Your task to perform on an android device: Show me popular videos on Youtube Image 0: 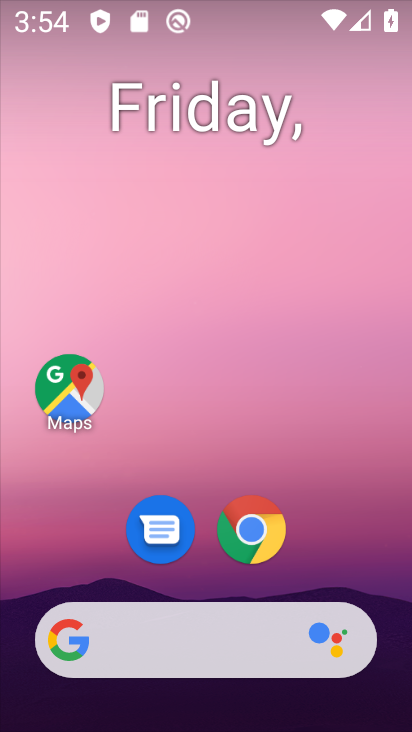
Step 0: drag from (55, 545) to (185, 135)
Your task to perform on an android device: Show me popular videos on Youtube Image 1: 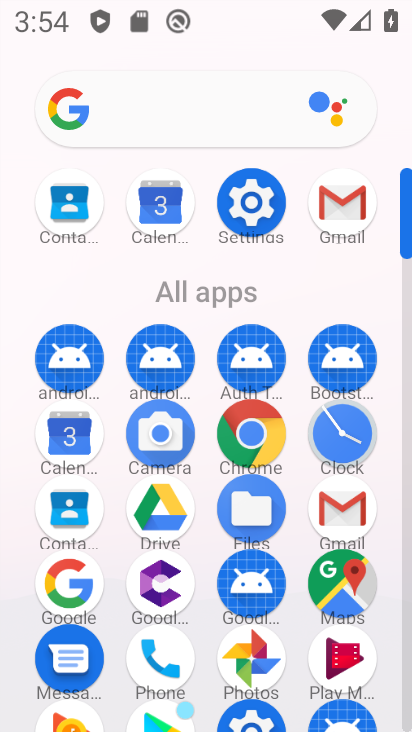
Step 1: drag from (181, 628) to (266, 222)
Your task to perform on an android device: Show me popular videos on Youtube Image 2: 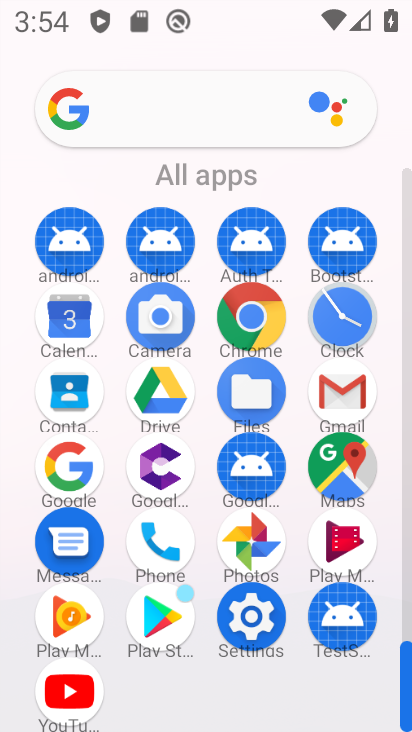
Step 2: click (73, 677)
Your task to perform on an android device: Show me popular videos on Youtube Image 3: 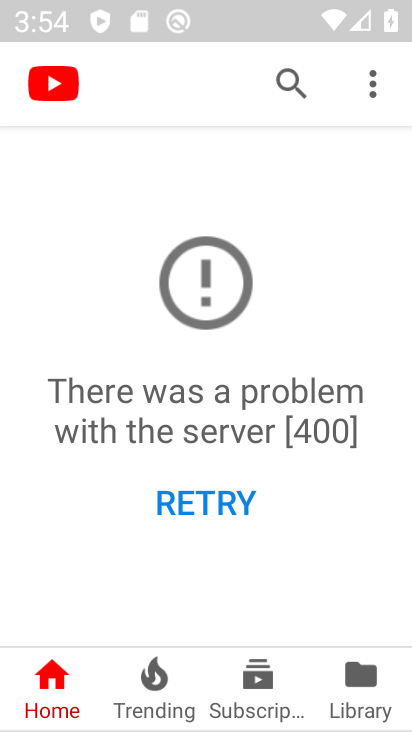
Step 3: click (388, 712)
Your task to perform on an android device: Show me popular videos on Youtube Image 4: 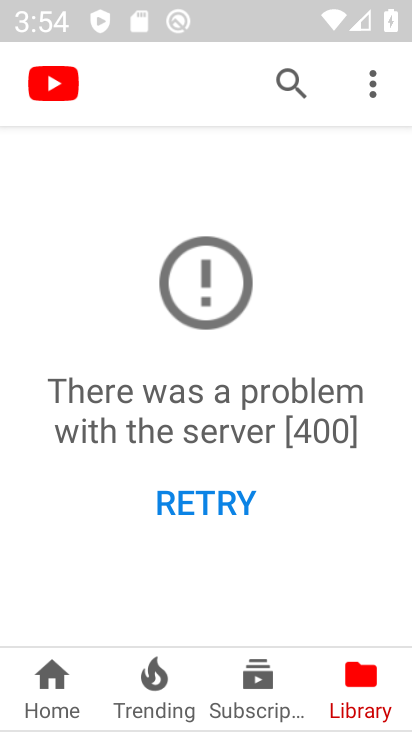
Step 4: task complete